Your task to perform on an android device: turn notification dots on Image 0: 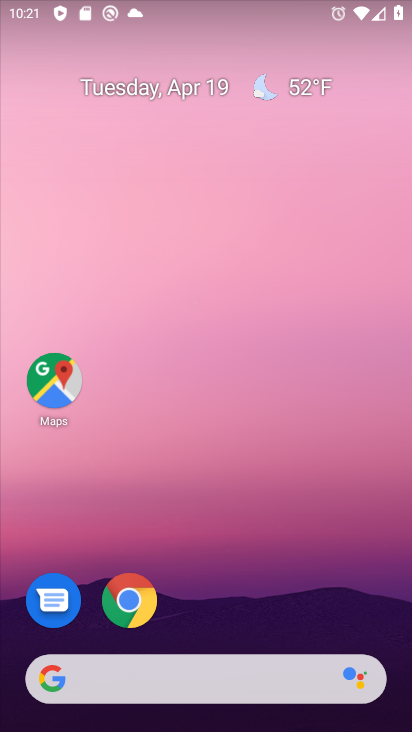
Step 0: drag from (296, 611) to (225, 202)
Your task to perform on an android device: turn notification dots on Image 1: 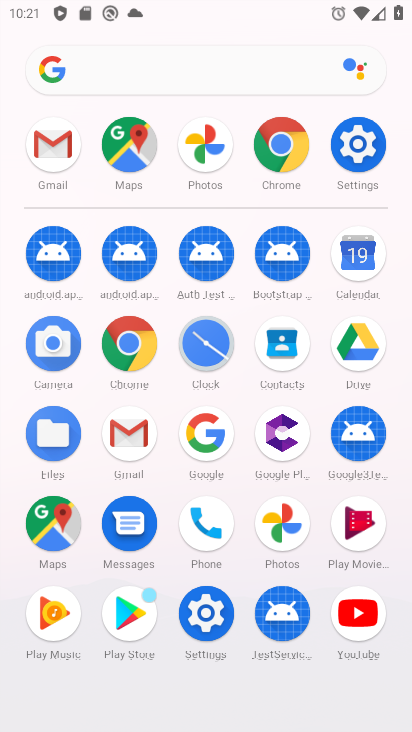
Step 1: click (369, 146)
Your task to perform on an android device: turn notification dots on Image 2: 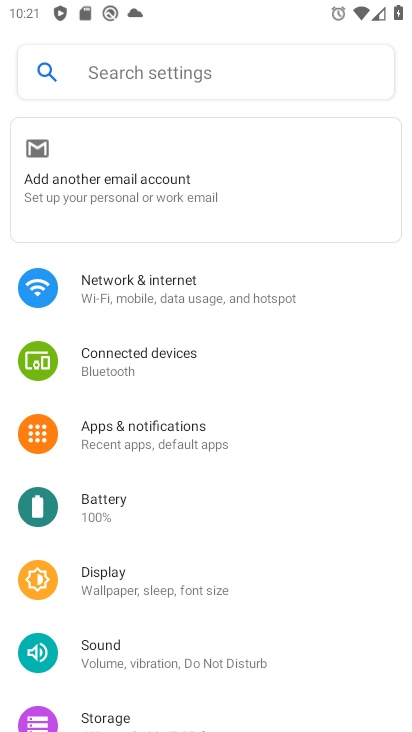
Step 2: click (212, 432)
Your task to perform on an android device: turn notification dots on Image 3: 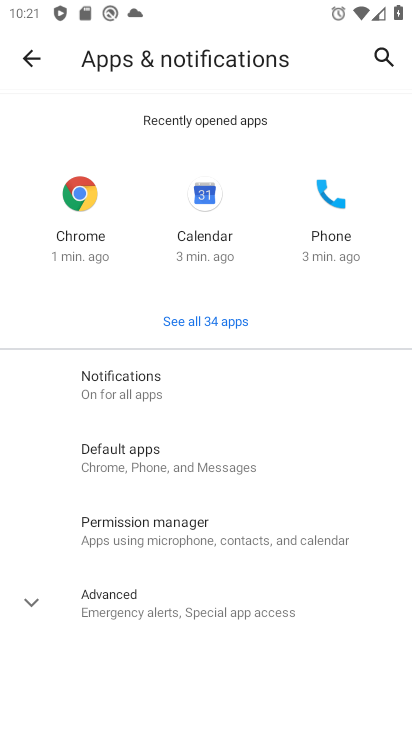
Step 3: click (213, 409)
Your task to perform on an android device: turn notification dots on Image 4: 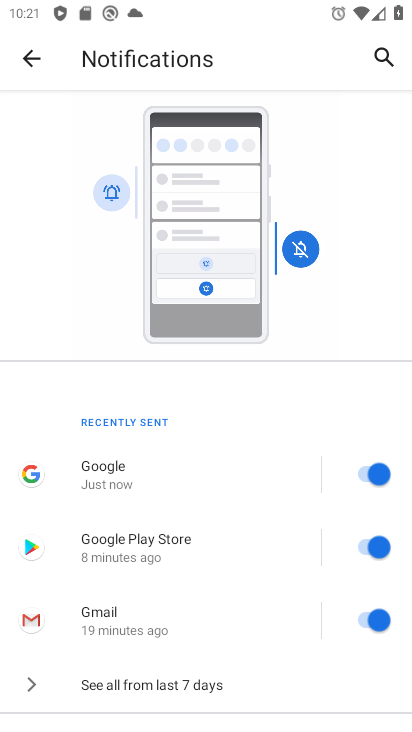
Step 4: drag from (183, 625) to (230, 271)
Your task to perform on an android device: turn notification dots on Image 5: 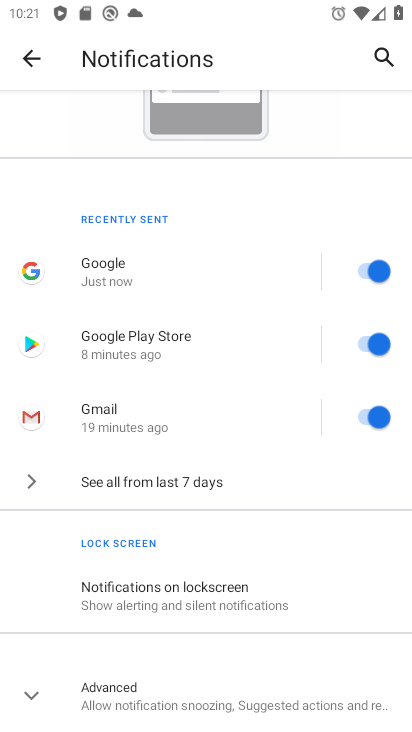
Step 5: drag from (142, 629) to (194, 264)
Your task to perform on an android device: turn notification dots on Image 6: 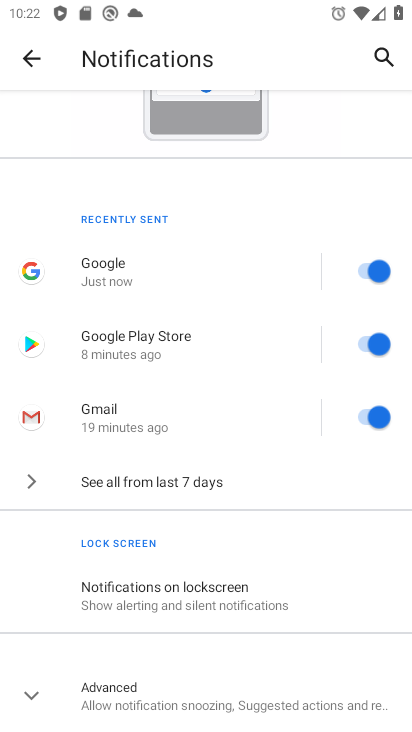
Step 6: click (134, 681)
Your task to perform on an android device: turn notification dots on Image 7: 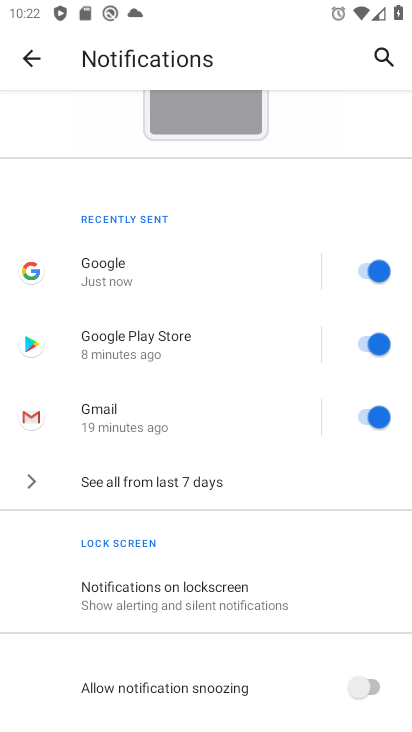
Step 7: task complete